Your task to perform on an android device: Go to calendar. Show me events next week Image 0: 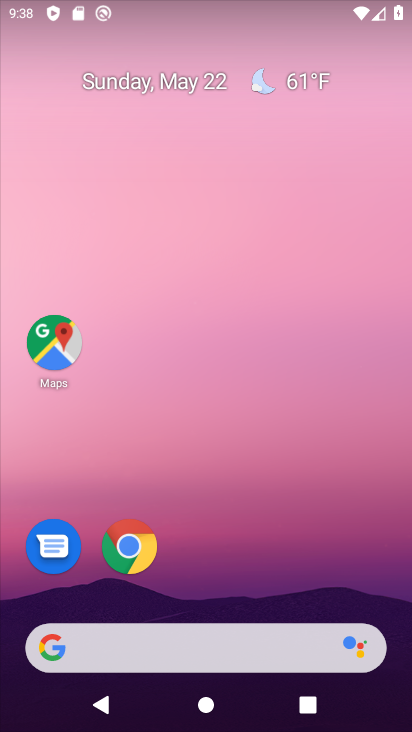
Step 0: drag from (193, 643) to (215, 168)
Your task to perform on an android device: Go to calendar. Show me events next week Image 1: 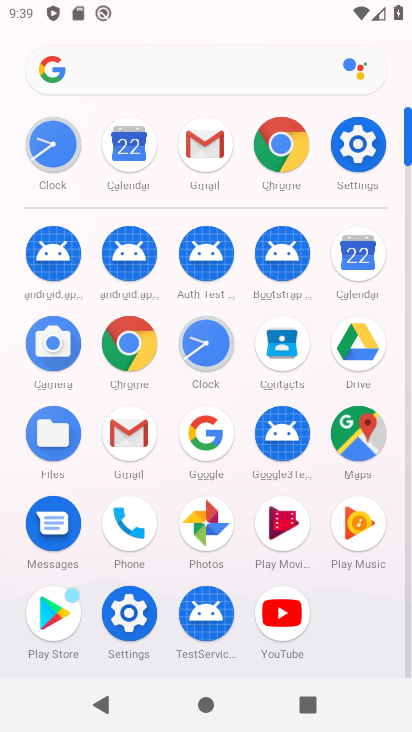
Step 1: click (355, 254)
Your task to perform on an android device: Go to calendar. Show me events next week Image 2: 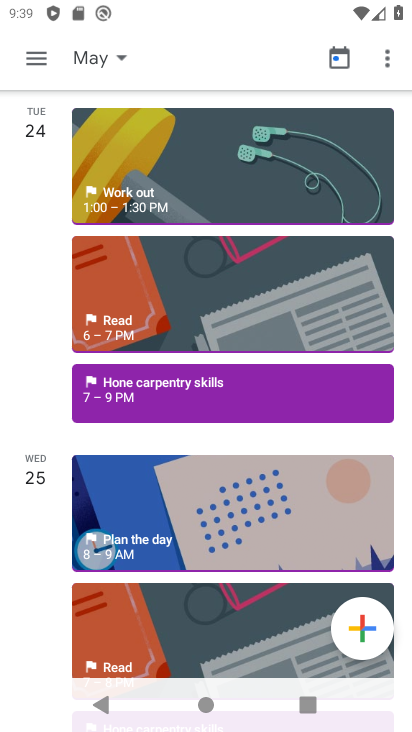
Step 2: click (26, 66)
Your task to perform on an android device: Go to calendar. Show me events next week Image 3: 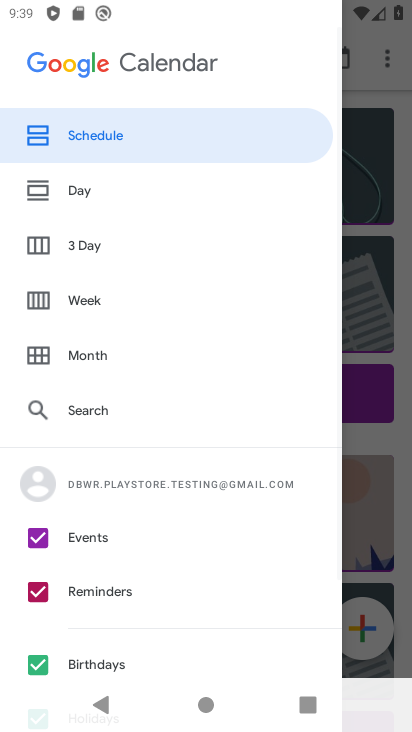
Step 3: click (82, 305)
Your task to perform on an android device: Go to calendar. Show me events next week Image 4: 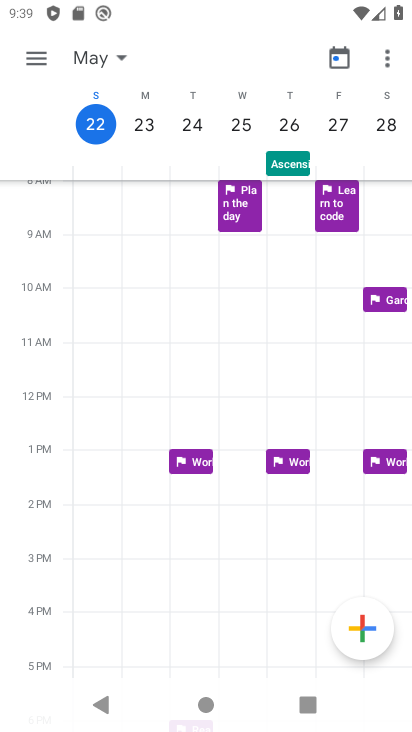
Step 4: task complete